Your task to perform on an android device: change your default location settings in chrome Image 0: 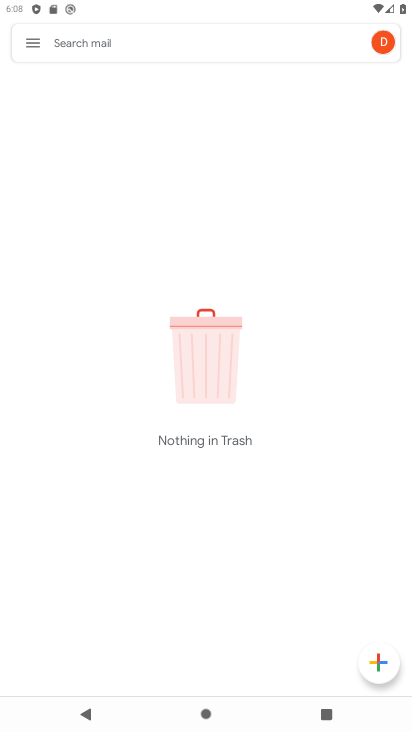
Step 0: press home button
Your task to perform on an android device: change your default location settings in chrome Image 1: 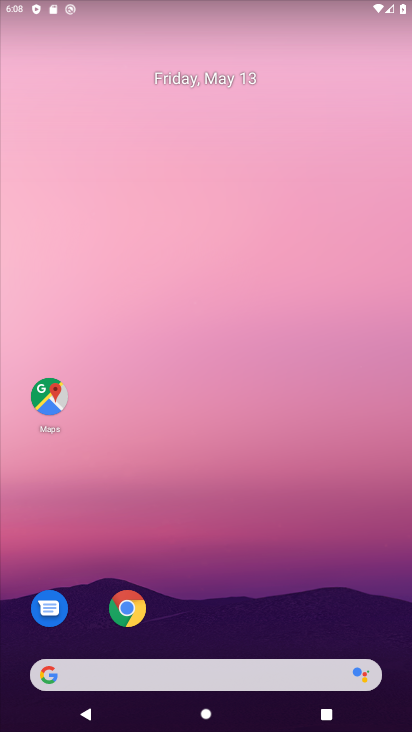
Step 1: click (133, 611)
Your task to perform on an android device: change your default location settings in chrome Image 2: 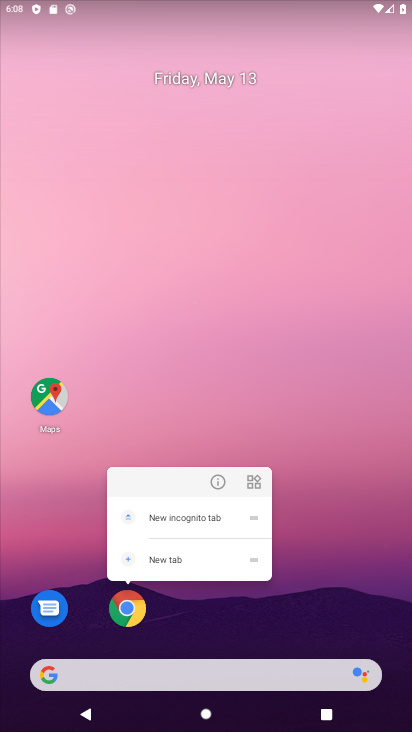
Step 2: click (133, 609)
Your task to perform on an android device: change your default location settings in chrome Image 3: 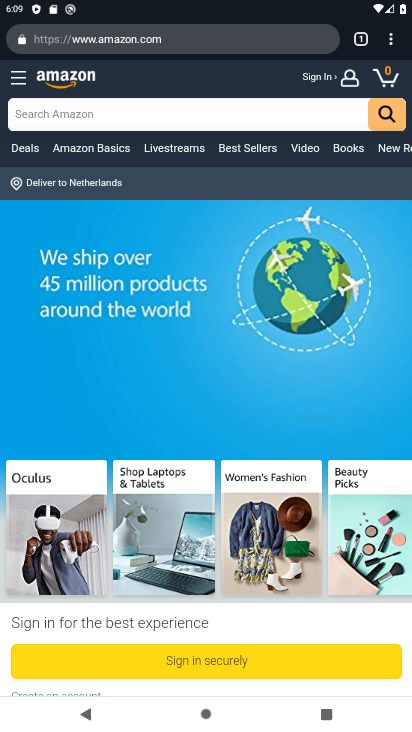
Step 3: click (390, 41)
Your task to perform on an android device: change your default location settings in chrome Image 4: 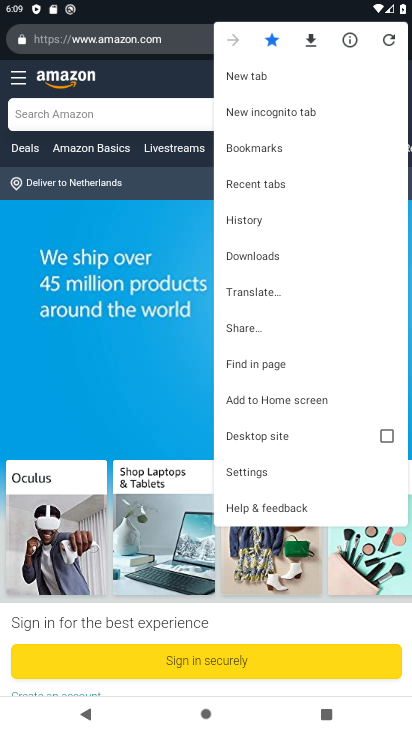
Step 4: click (256, 474)
Your task to perform on an android device: change your default location settings in chrome Image 5: 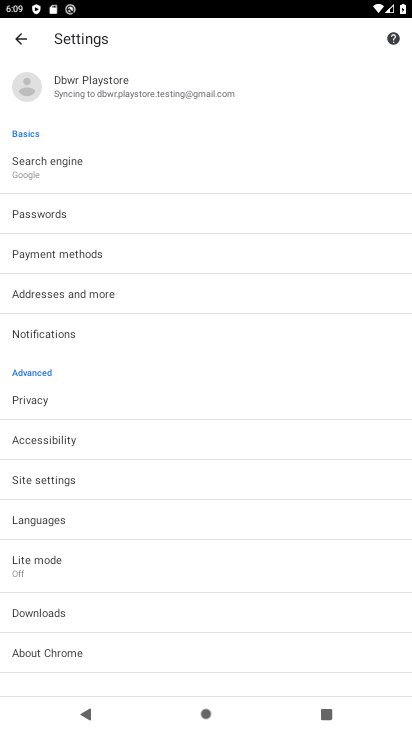
Step 5: click (72, 476)
Your task to perform on an android device: change your default location settings in chrome Image 6: 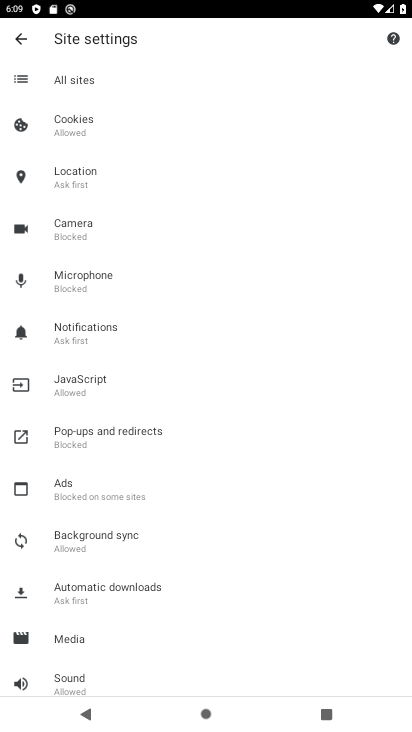
Step 6: click (96, 170)
Your task to perform on an android device: change your default location settings in chrome Image 7: 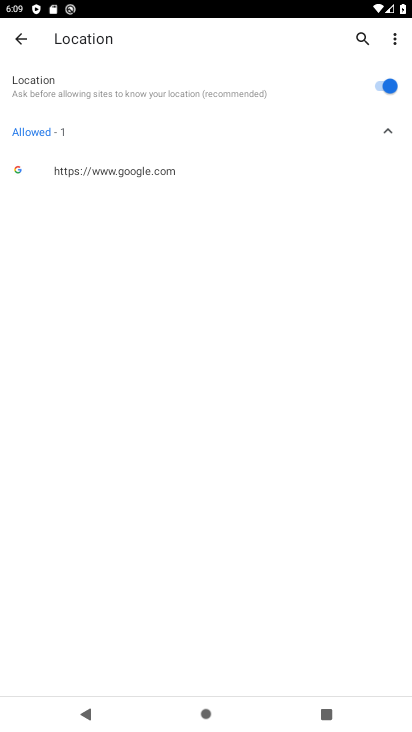
Step 7: click (369, 85)
Your task to perform on an android device: change your default location settings in chrome Image 8: 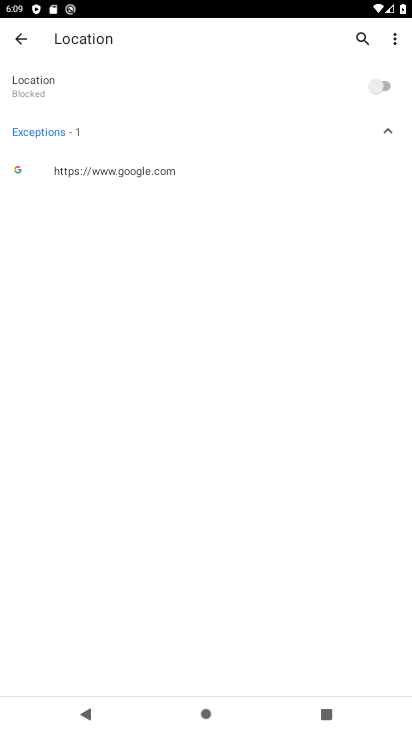
Step 8: task complete